Your task to perform on an android device: delete the emails in spam in the gmail app Image 0: 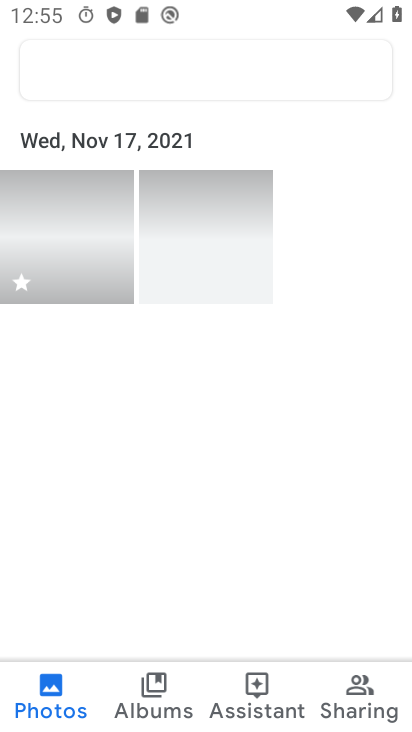
Step 0: drag from (370, 583) to (320, 89)
Your task to perform on an android device: delete the emails in spam in the gmail app Image 1: 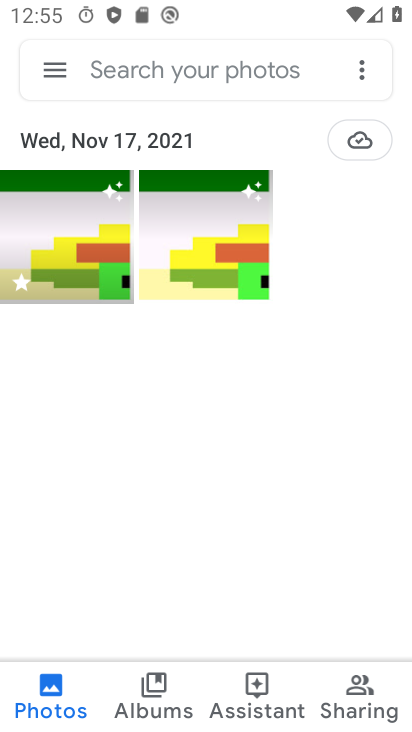
Step 1: press home button
Your task to perform on an android device: delete the emails in spam in the gmail app Image 2: 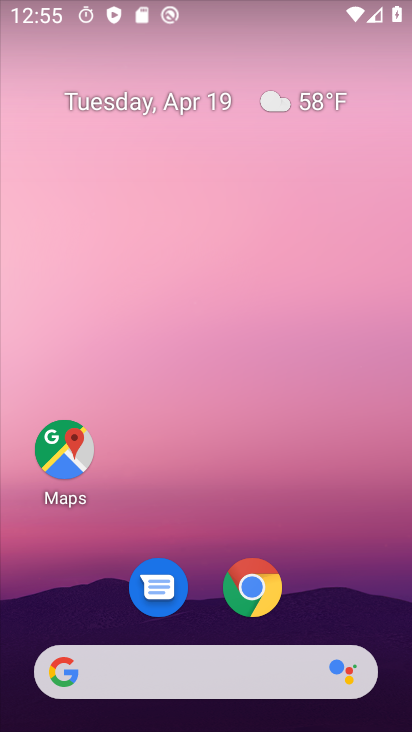
Step 2: drag from (394, 585) to (380, 115)
Your task to perform on an android device: delete the emails in spam in the gmail app Image 3: 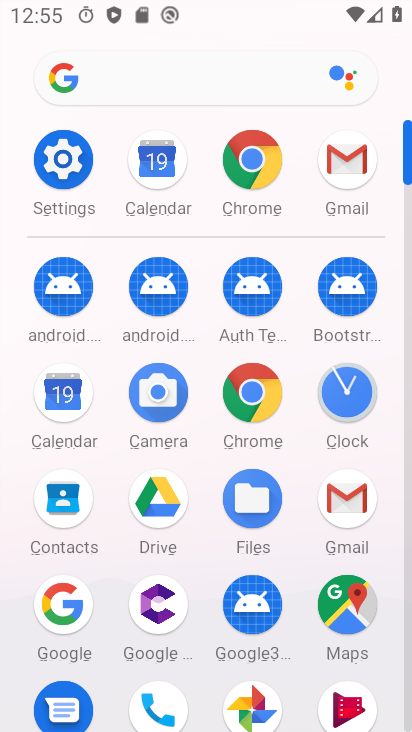
Step 3: click (337, 504)
Your task to perform on an android device: delete the emails in spam in the gmail app Image 4: 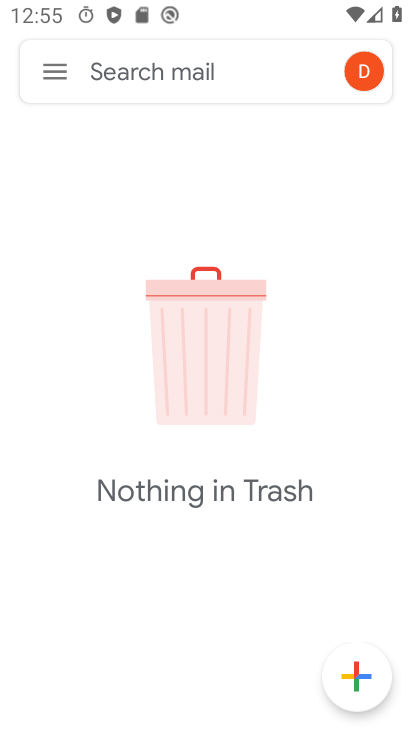
Step 4: click (58, 74)
Your task to perform on an android device: delete the emails in spam in the gmail app Image 5: 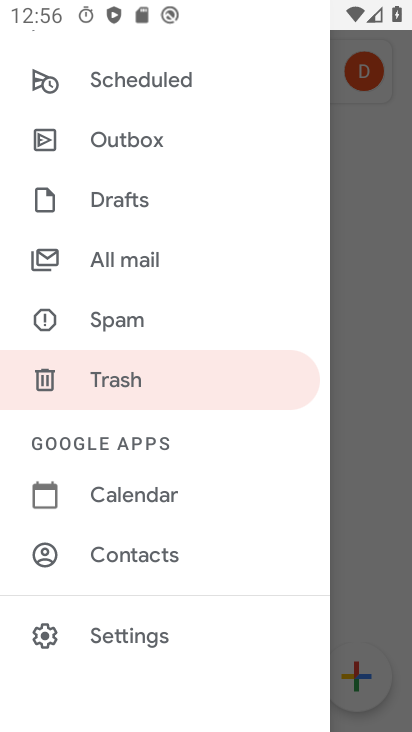
Step 5: click (145, 316)
Your task to perform on an android device: delete the emails in spam in the gmail app Image 6: 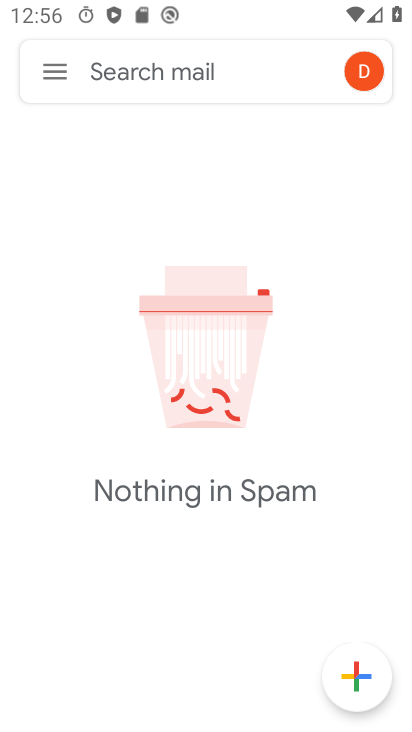
Step 6: task complete